Your task to perform on an android device: Open Google Chrome and open the bookmarks view Image 0: 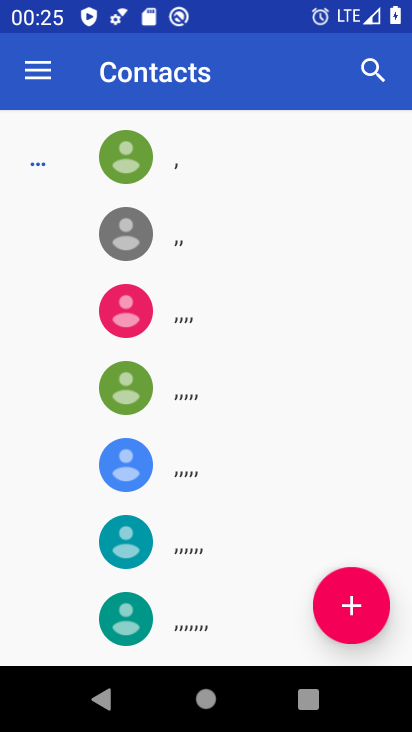
Step 0: press home button
Your task to perform on an android device: Open Google Chrome and open the bookmarks view Image 1: 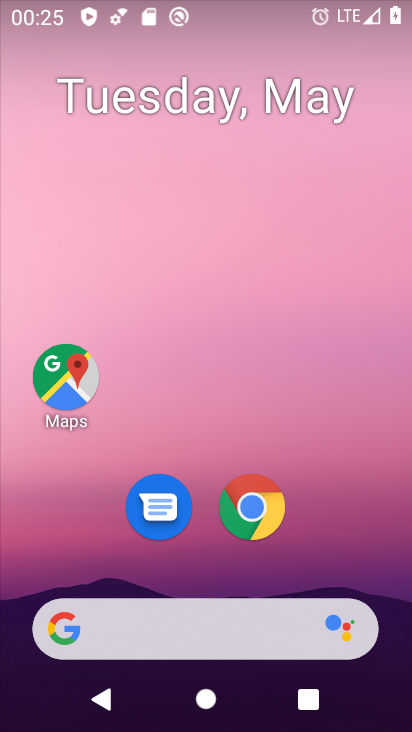
Step 1: click (277, 494)
Your task to perform on an android device: Open Google Chrome and open the bookmarks view Image 2: 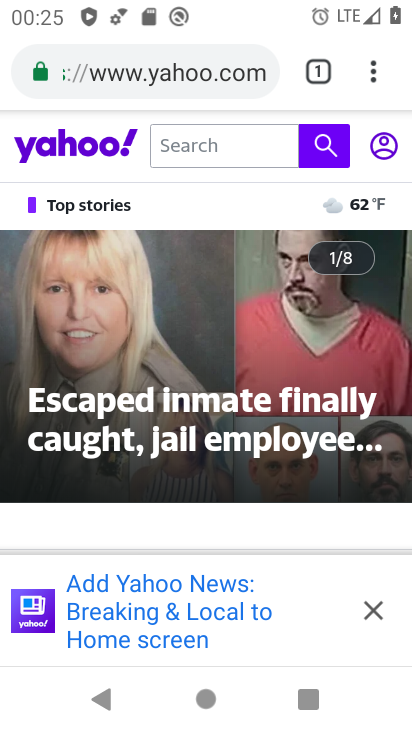
Step 2: click (371, 73)
Your task to perform on an android device: Open Google Chrome and open the bookmarks view Image 3: 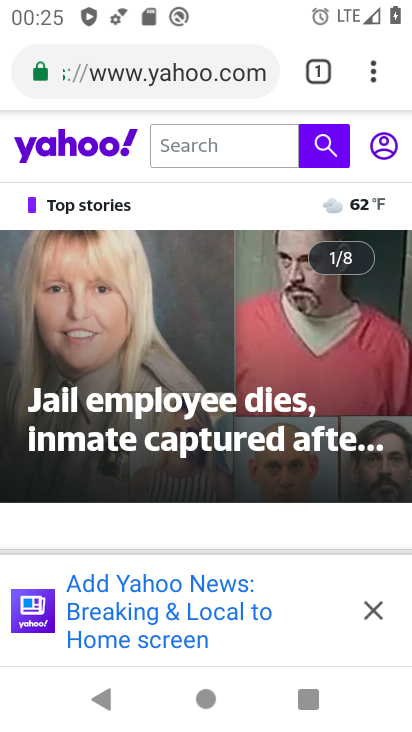
Step 3: click (372, 75)
Your task to perform on an android device: Open Google Chrome and open the bookmarks view Image 4: 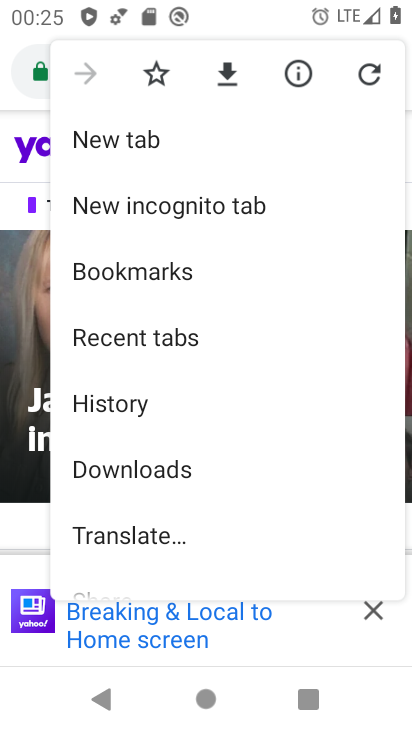
Step 4: click (124, 273)
Your task to perform on an android device: Open Google Chrome and open the bookmarks view Image 5: 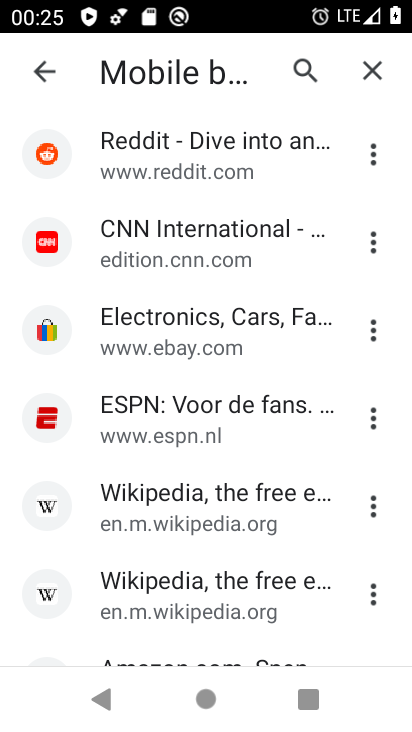
Step 5: task complete